Your task to perform on an android device: Go to sound settings Image 0: 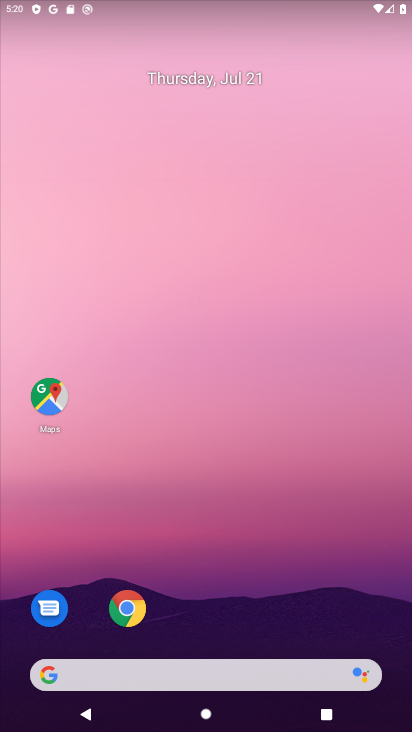
Step 0: drag from (239, 520) to (228, 201)
Your task to perform on an android device: Go to sound settings Image 1: 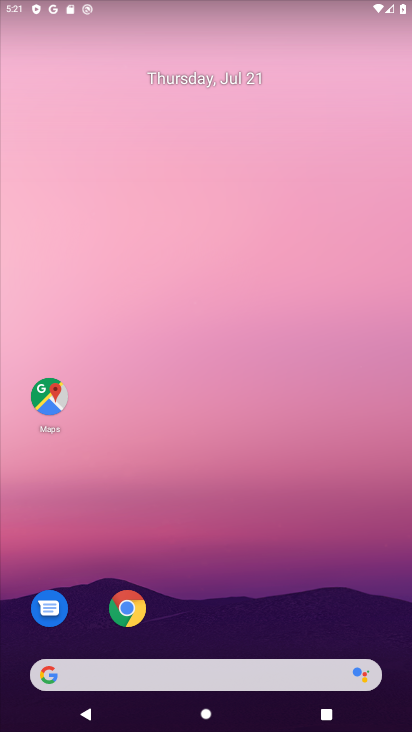
Step 1: drag from (227, 572) to (130, 51)
Your task to perform on an android device: Go to sound settings Image 2: 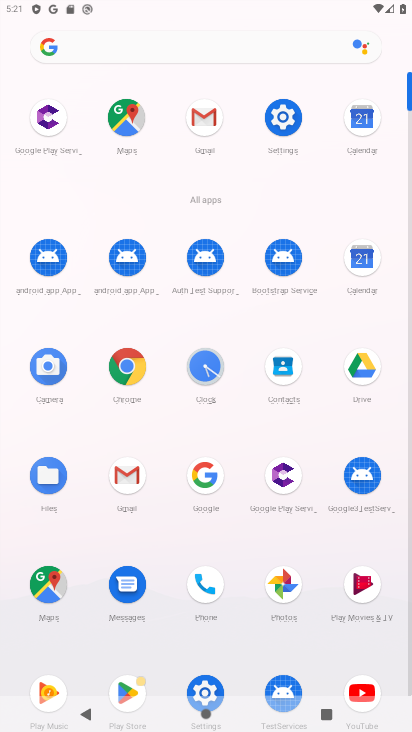
Step 2: click (279, 103)
Your task to perform on an android device: Go to sound settings Image 3: 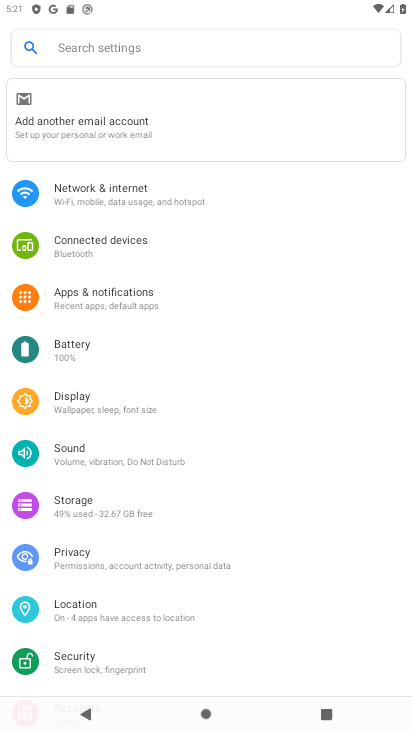
Step 3: click (66, 455)
Your task to perform on an android device: Go to sound settings Image 4: 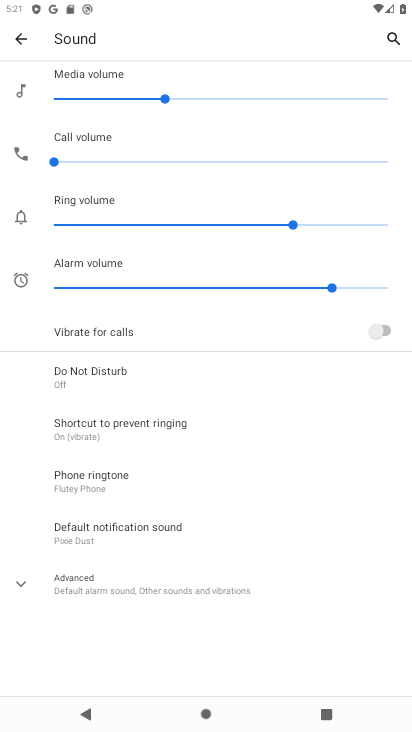
Step 4: task complete